Your task to perform on an android device: Turn off the flashlight Image 0: 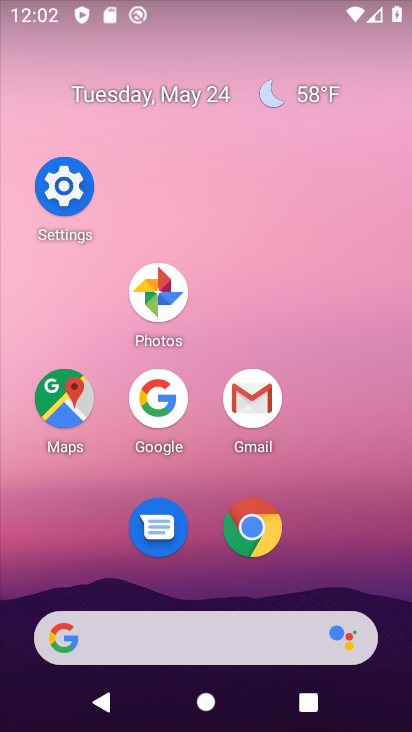
Step 0: drag from (240, 1) to (261, 439)
Your task to perform on an android device: Turn off the flashlight Image 1: 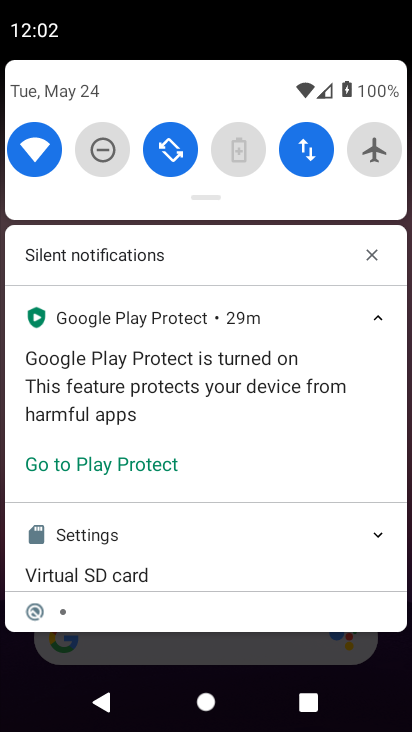
Step 1: task complete